Your task to perform on an android device: When is my next meeting? Image 0: 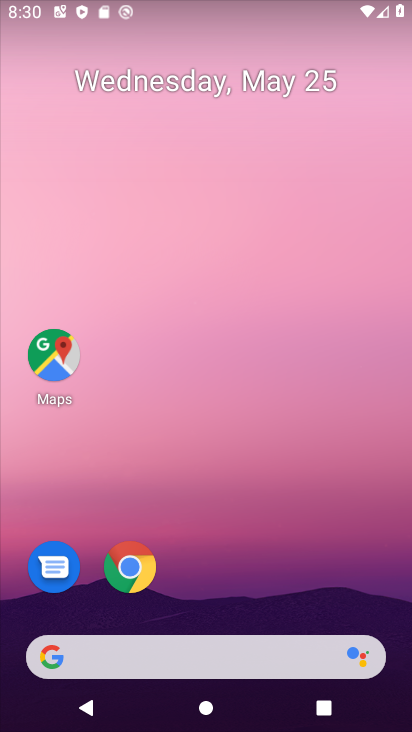
Step 0: drag from (280, 595) to (325, 102)
Your task to perform on an android device: When is my next meeting? Image 1: 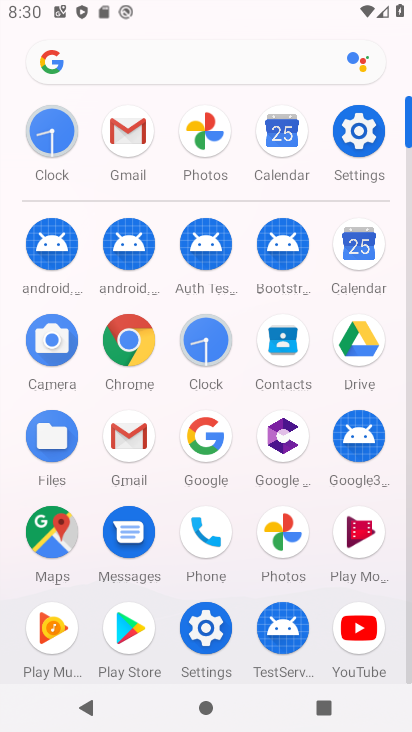
Step 1: click (254, 123)
Your task to perform on an android device: When is my next meeting? Image 2: 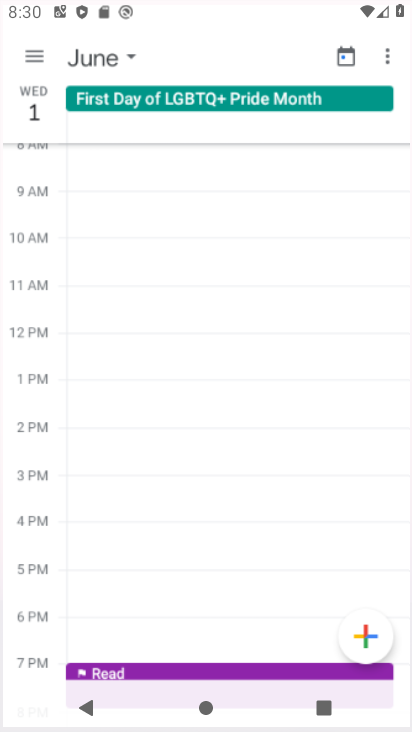
Step 2: task complete